Your task to perform on an android device: empty trash in the gmail app Image 0: 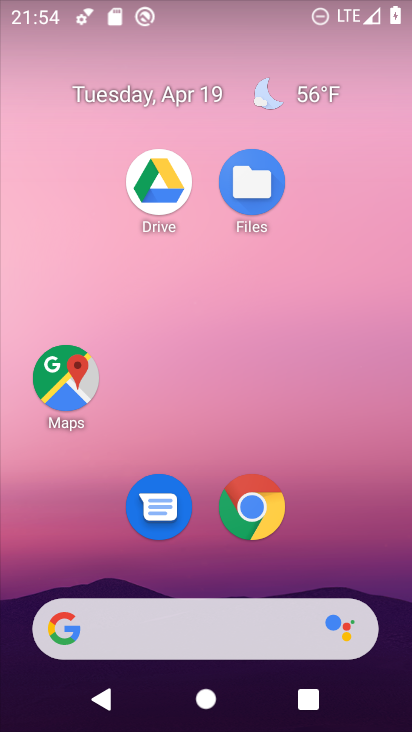
Step 0: drag from (324, 532) to (316, 94)
Your task to perform on an android device: empty trash in the gmail app Image 1: 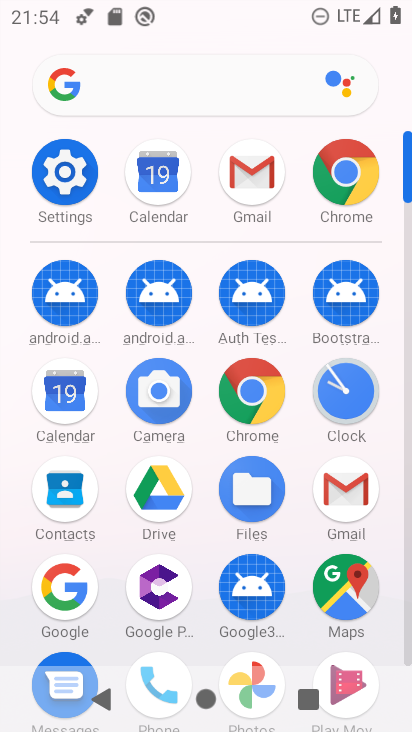
Step 1: click (257, 165)
Your task to perform on an android device: empty trash in the gmail app Image 2: 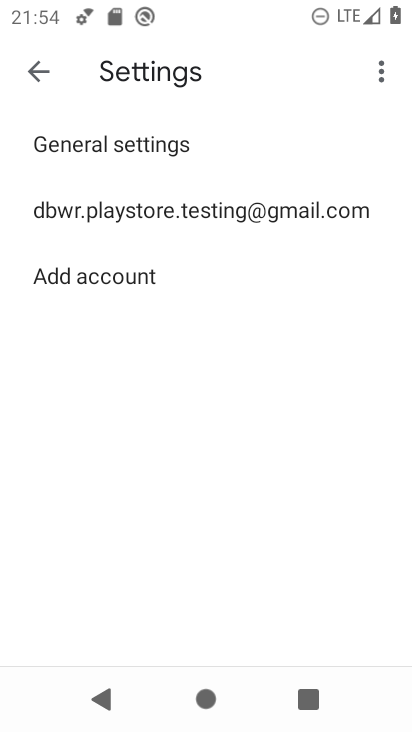
Step 2: click (256, 196)
Your task to perform on an android device: empty trash in the gmail app Image 3: 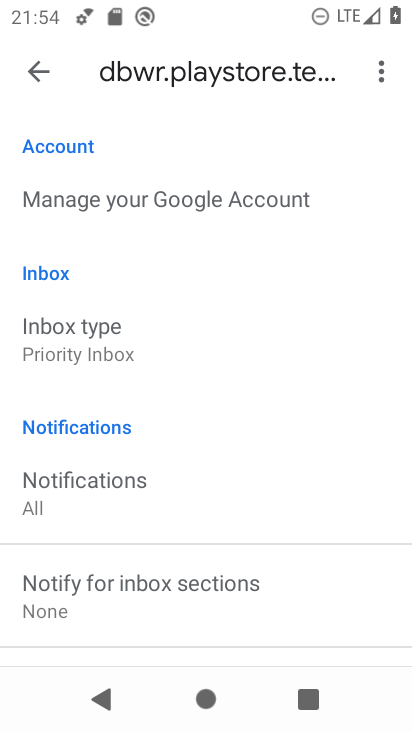
Step 3: click (33, 75)
Your task to perform on an android device: empty trash in the gmail app Image 4: 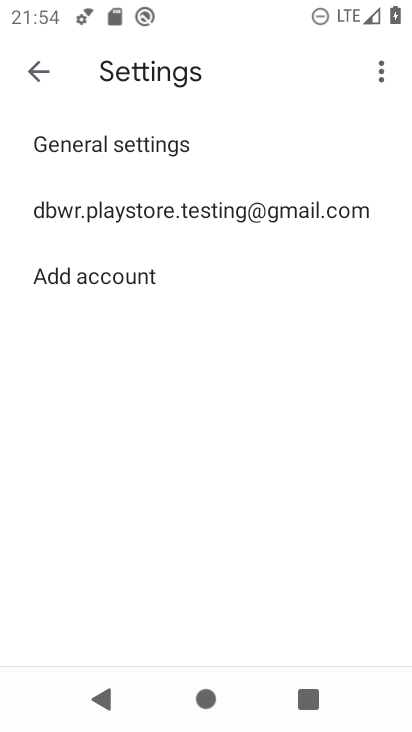
Step 4: click (41, 66)
Your task to perform on an android device: empty trash in the gmail app Image 5: 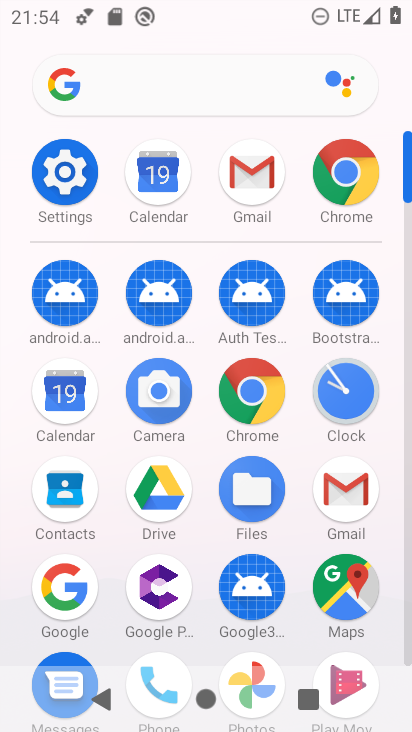
Step 5: click (245, 173)
Your task to perform on an android device: empty trash in the gmail app Image 6: 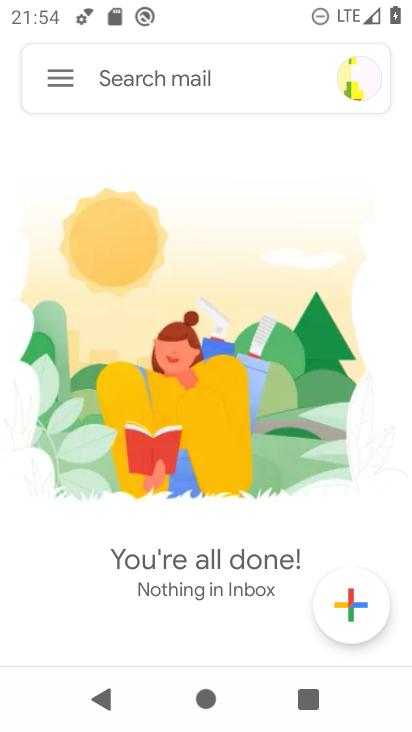
Step 6: click (59, 73)
Your task to perform on an android device: empty trash in the gmail app Image 7: 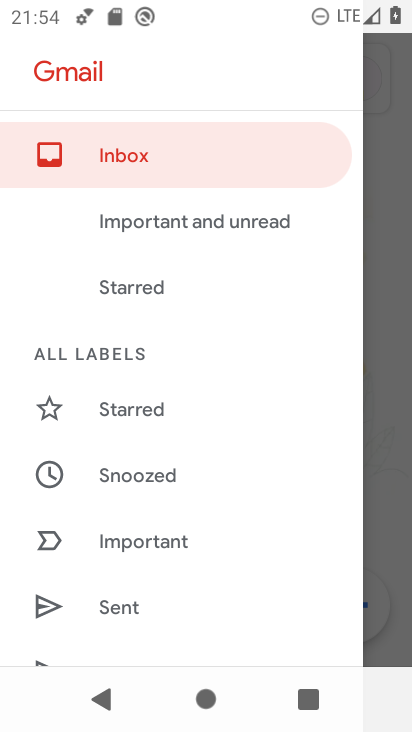
Step 7: drag from (192, 499) to (233, 178)
Your task to perform on an android device: empty trash in the gmail app Image 8: 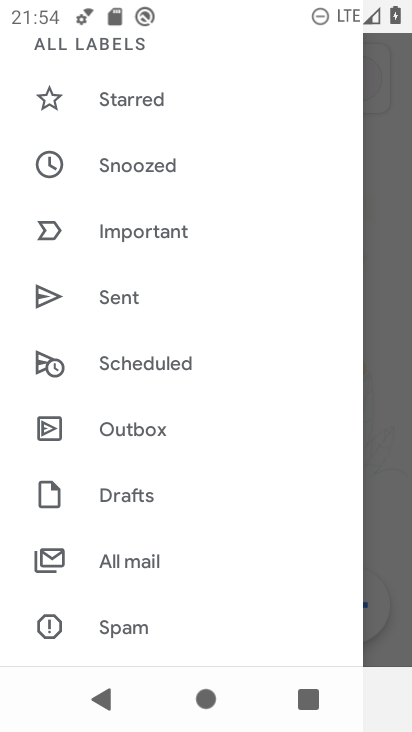
Step 8: drag from (213, 524) to (226, 144)
Your task to perform on an android device: empty trash in the gmail app Image 9: 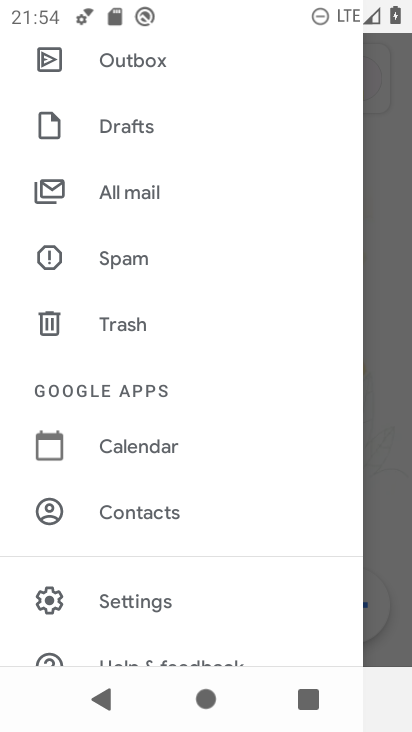
Step 9: click (164, 313)
Your task to perform on an android device: empty trash in the gmail app Image 10: 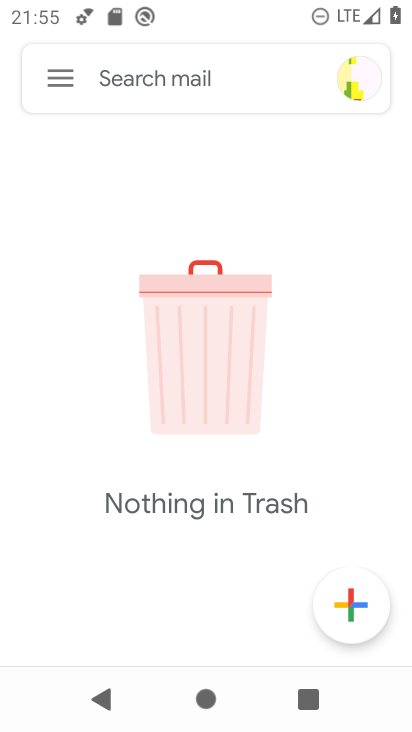
Step 10: task complete